Your task to perform on an android device: clear all cookies in the chrome app Image 0: 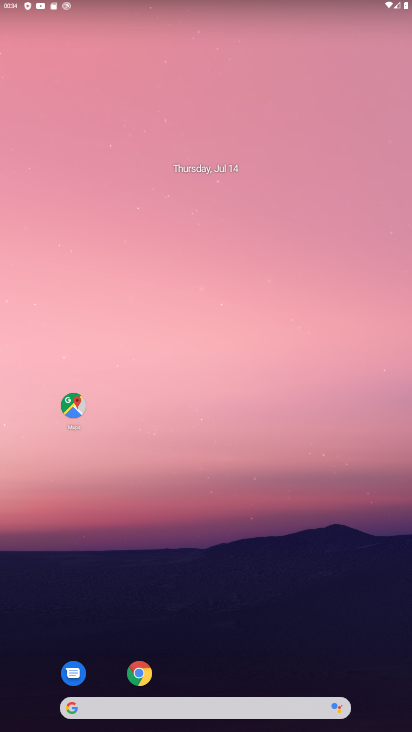
Step 0: click (152, 678)
Your task to perform on an android device: clear all cookies in the chrome app Image 1: 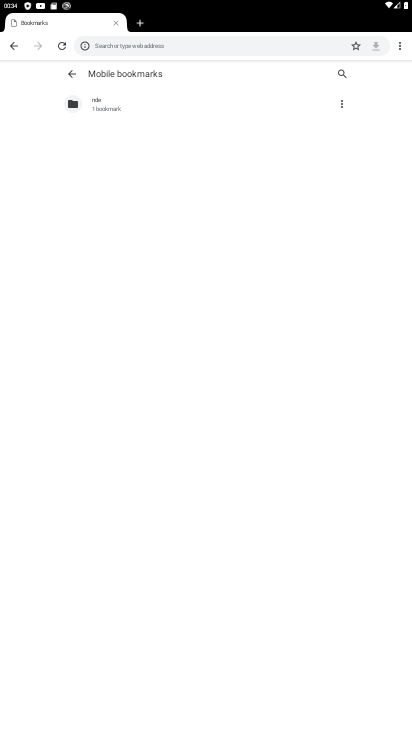
Step 1: click (398, 49)
Your task to perform on an android device: clear all cookies in the chrome app Image 2: 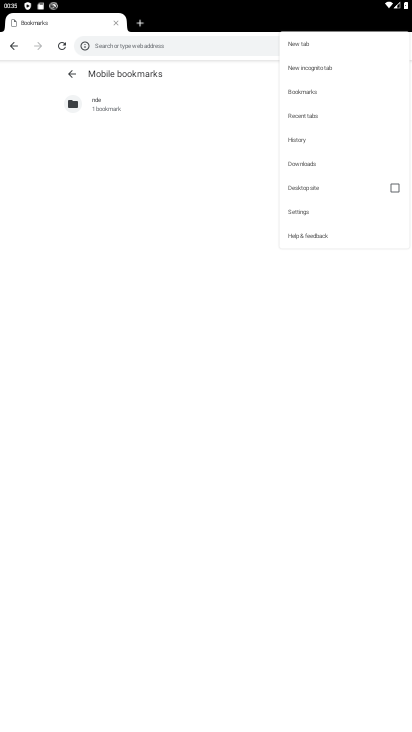
Step 2: click (314, 139)
Your task to perform on an android device: clear all cookies in the chrome app Image 3: 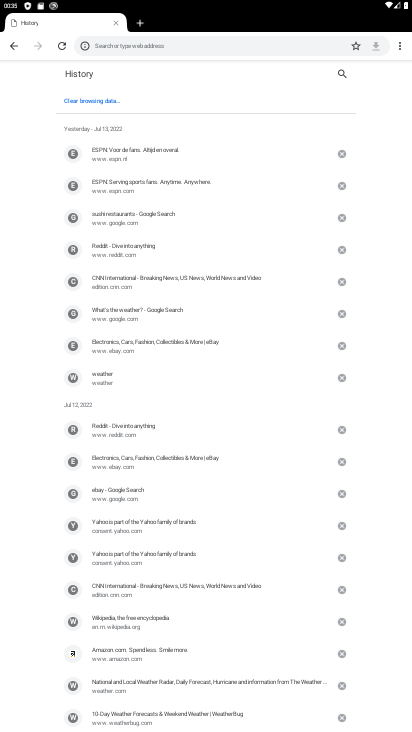
Step 3: click (94, 101)
Your task to perform on an android device: clear all cookies in the chrome app Image 4: 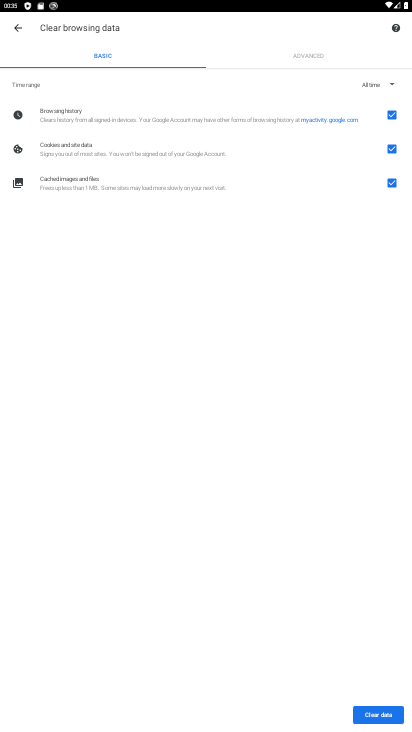
Step 4: click (375, 711)
Your task to perform on an android device: clear all cookies in the chrome app Image 5: 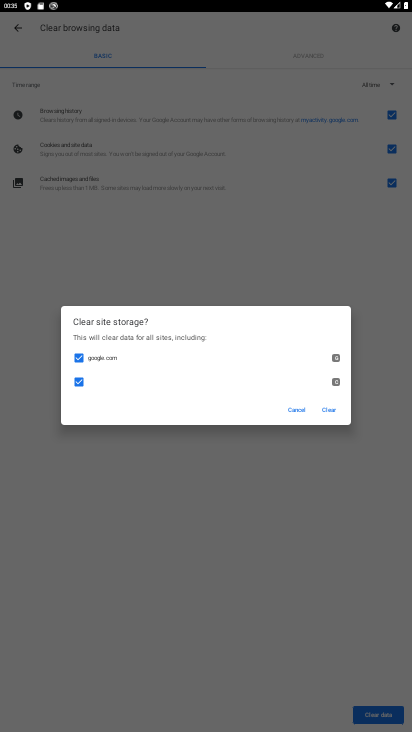
Step 5: click (328, 410)
Your task to perform on an android device: clear all cookies in the chrome app Image 6: 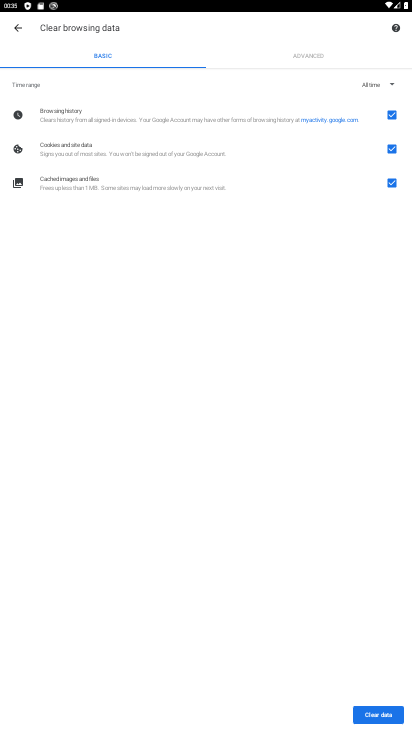
Step 6: task complete